Your task to perform on an android device: Add "apple airpods" to the cart on newegg.com Image 0: 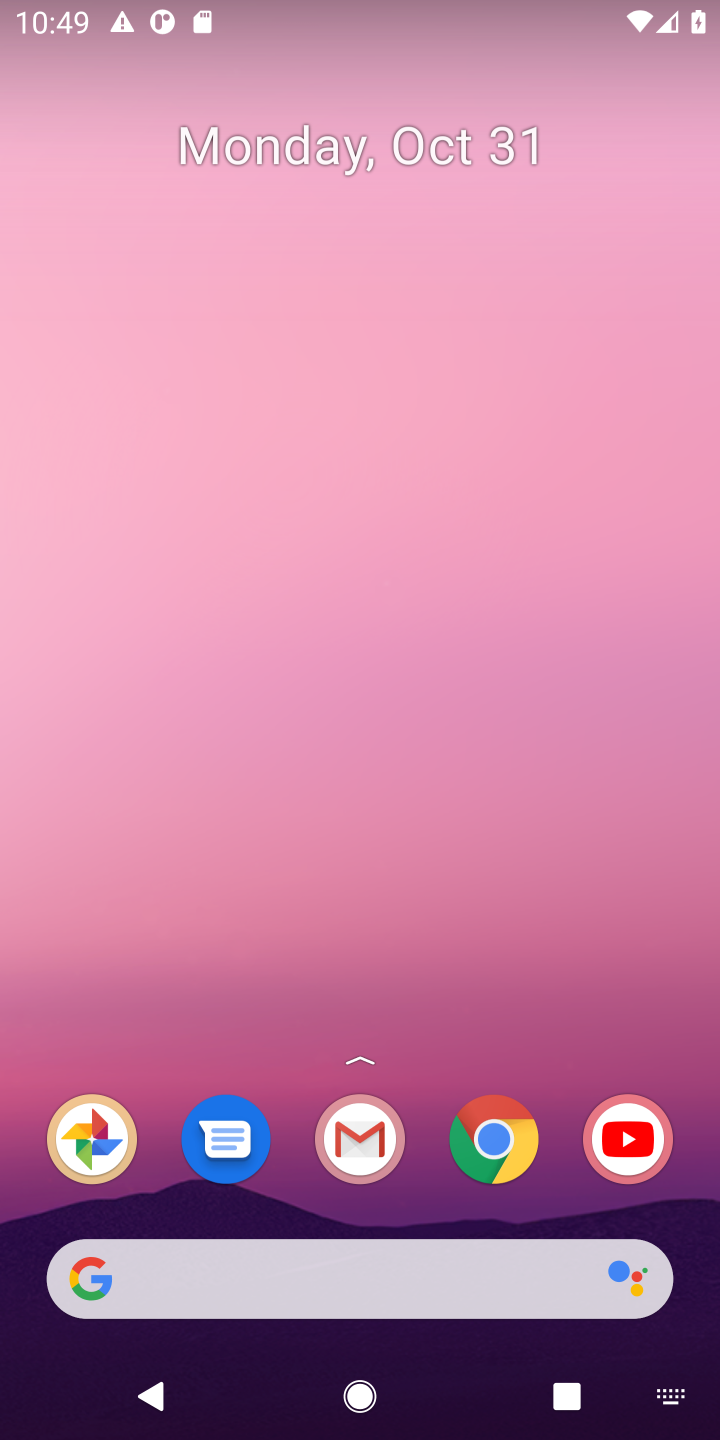
Step 0: press home button
Your task to perform on an android device: Add "apple airpods" to the cart on newegg.com Image 1: 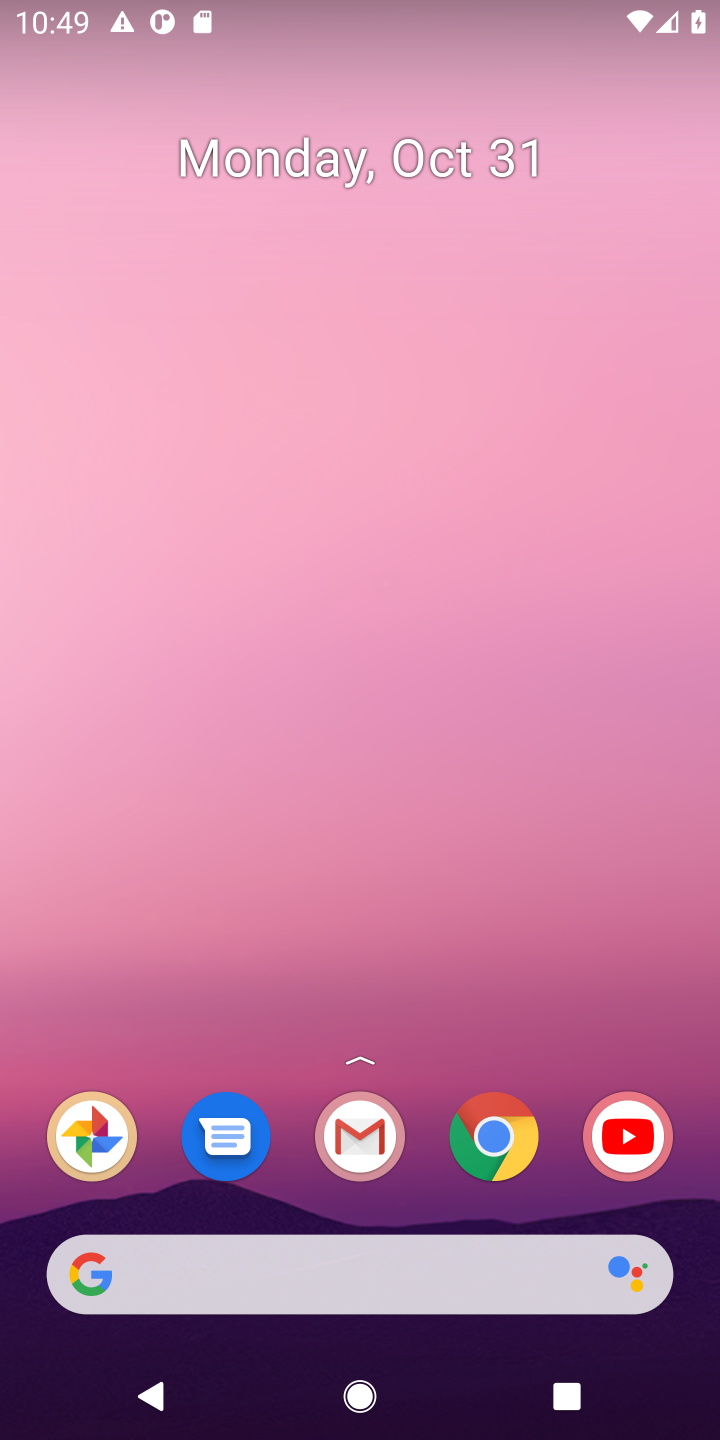
Step 1: press home button
Your task to perform on an android device: Add "apple airpods" to the cart on newegg.com Image 2: 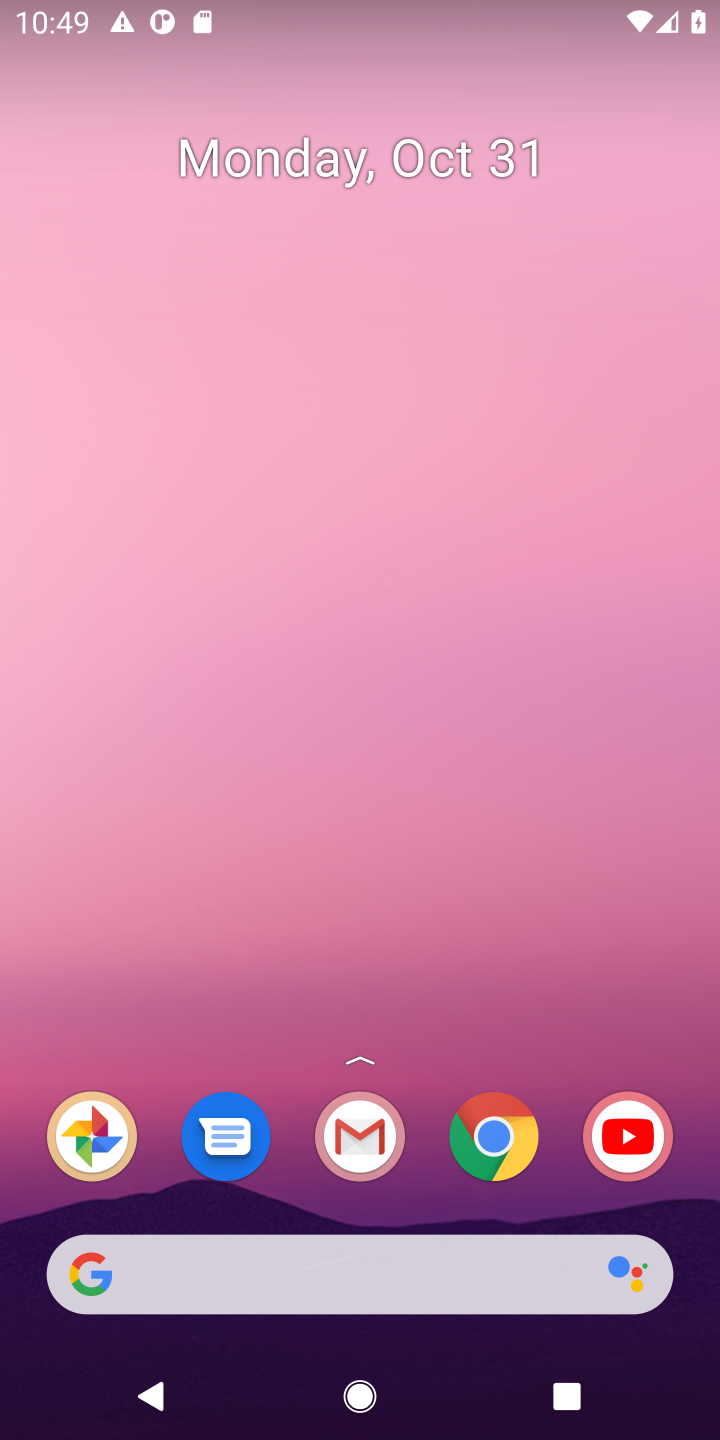
Step 2: click (127, 1267)
Your task to perform on an android device: Add "apple airpods" to the cart on newegg.com Image 3: 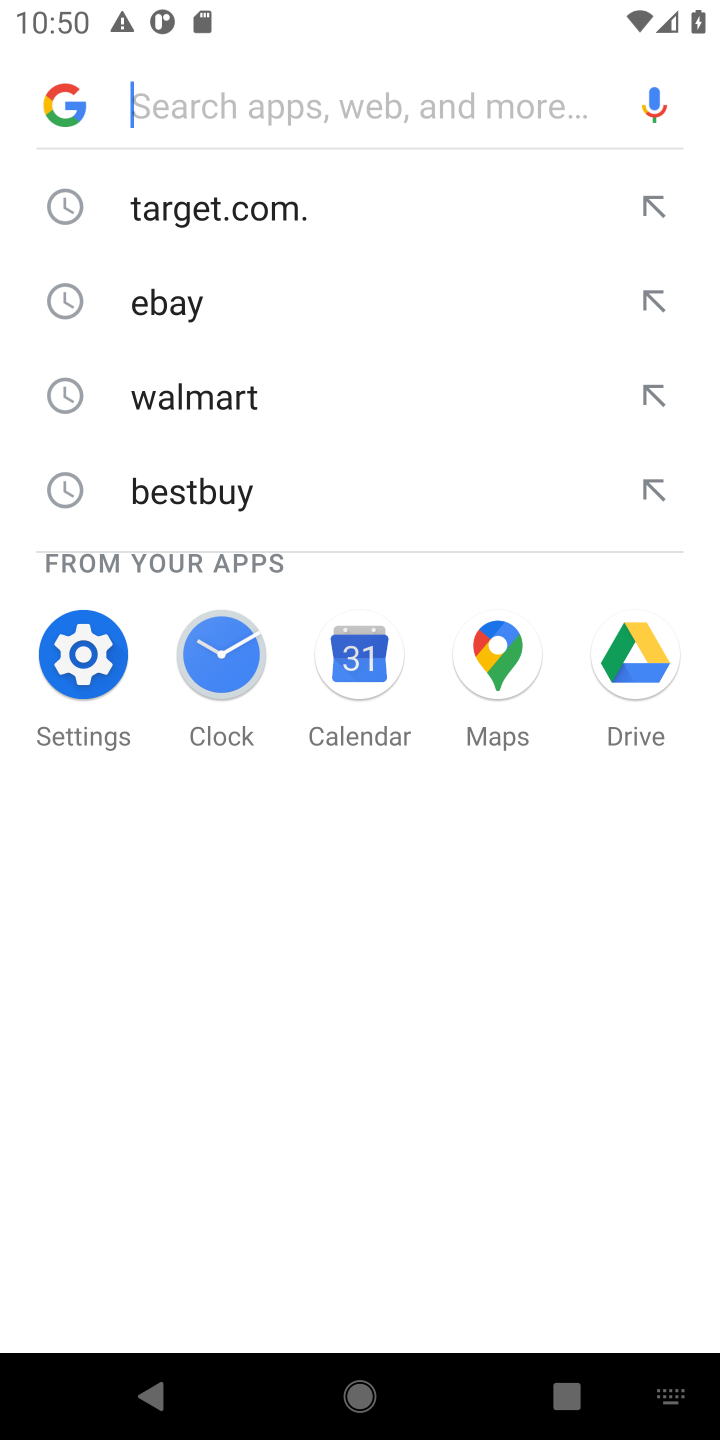
Step 3: press enter
Your task to perform on an android device: Add "apple airpods" to the cart on newegg.com Image 4: 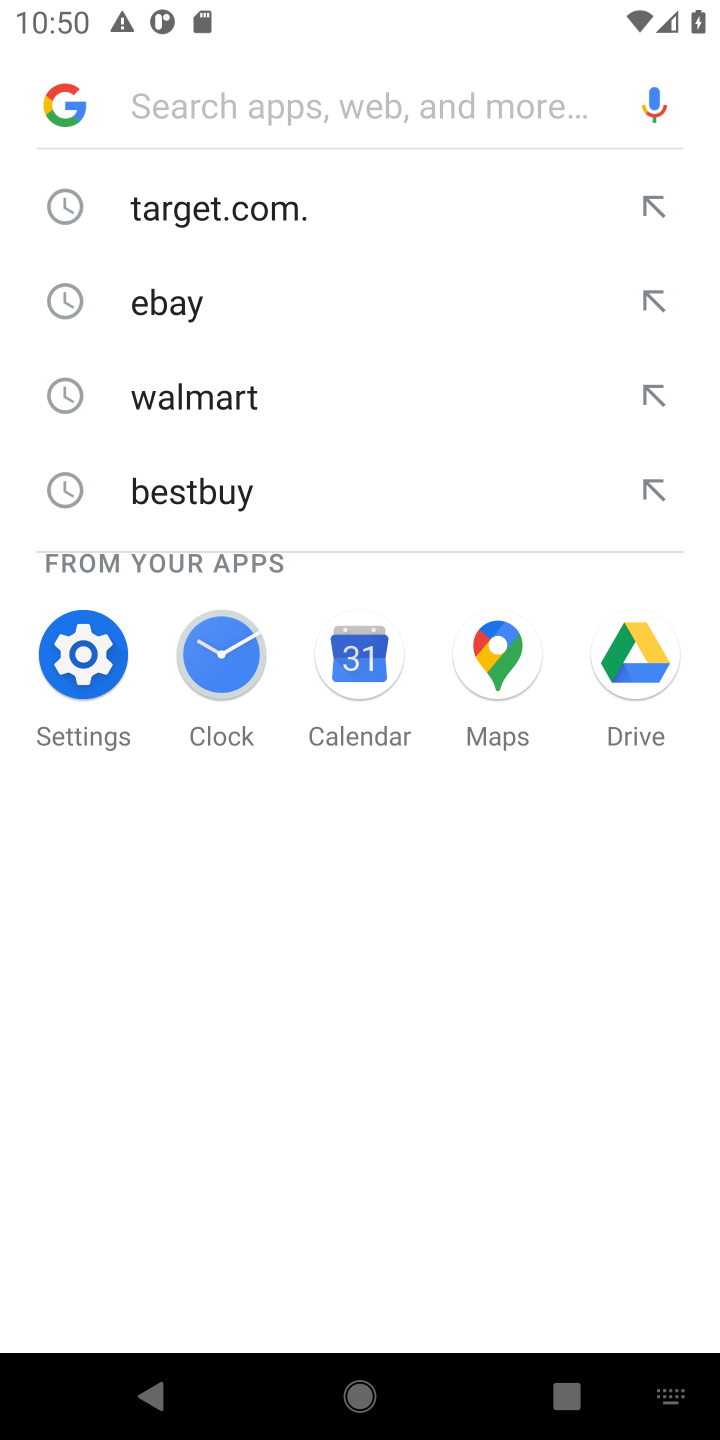
Step 4: type "newegg.com"
Your task to perform on an android device: Add "apple airpods" to the cart on newegg.com Image 5: 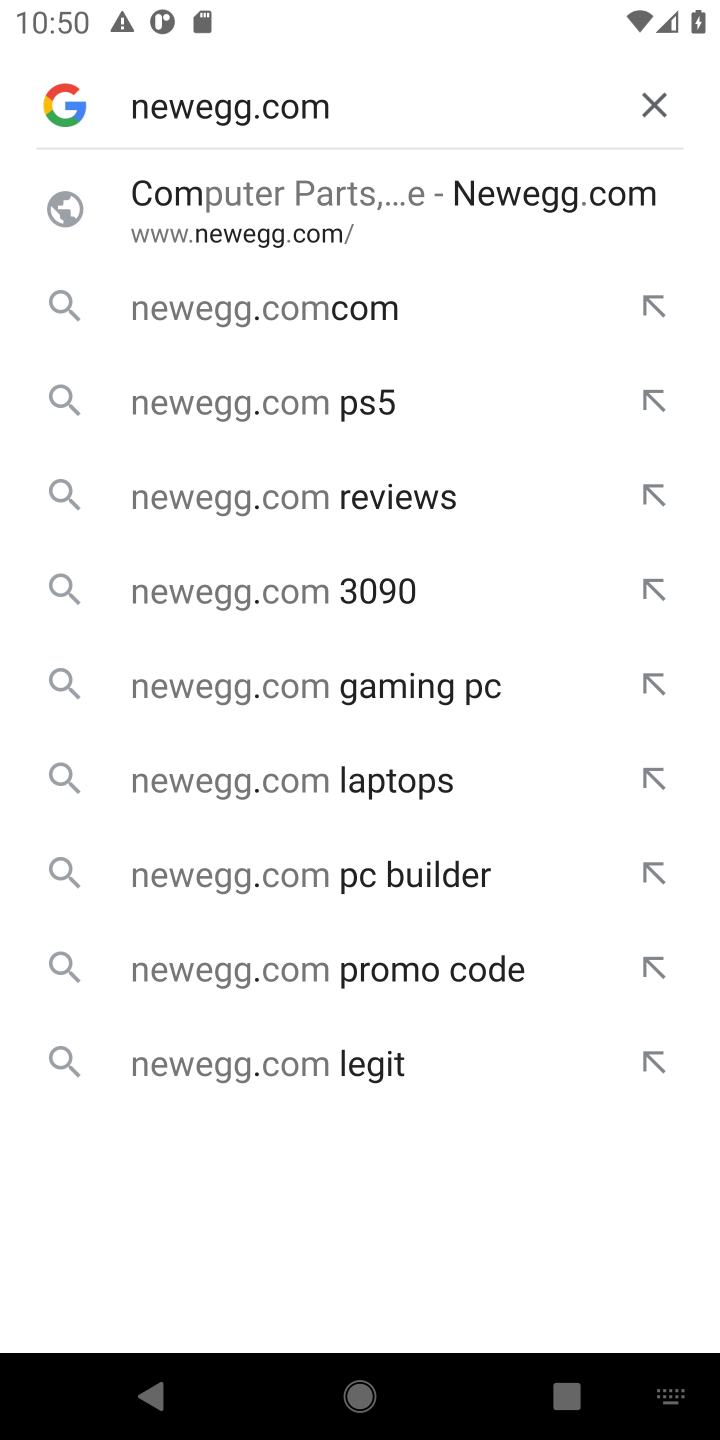
Step 5: press enter
Your task to perform on an android device: Add "apple airpods" to the cart on newegg.com Image 6: 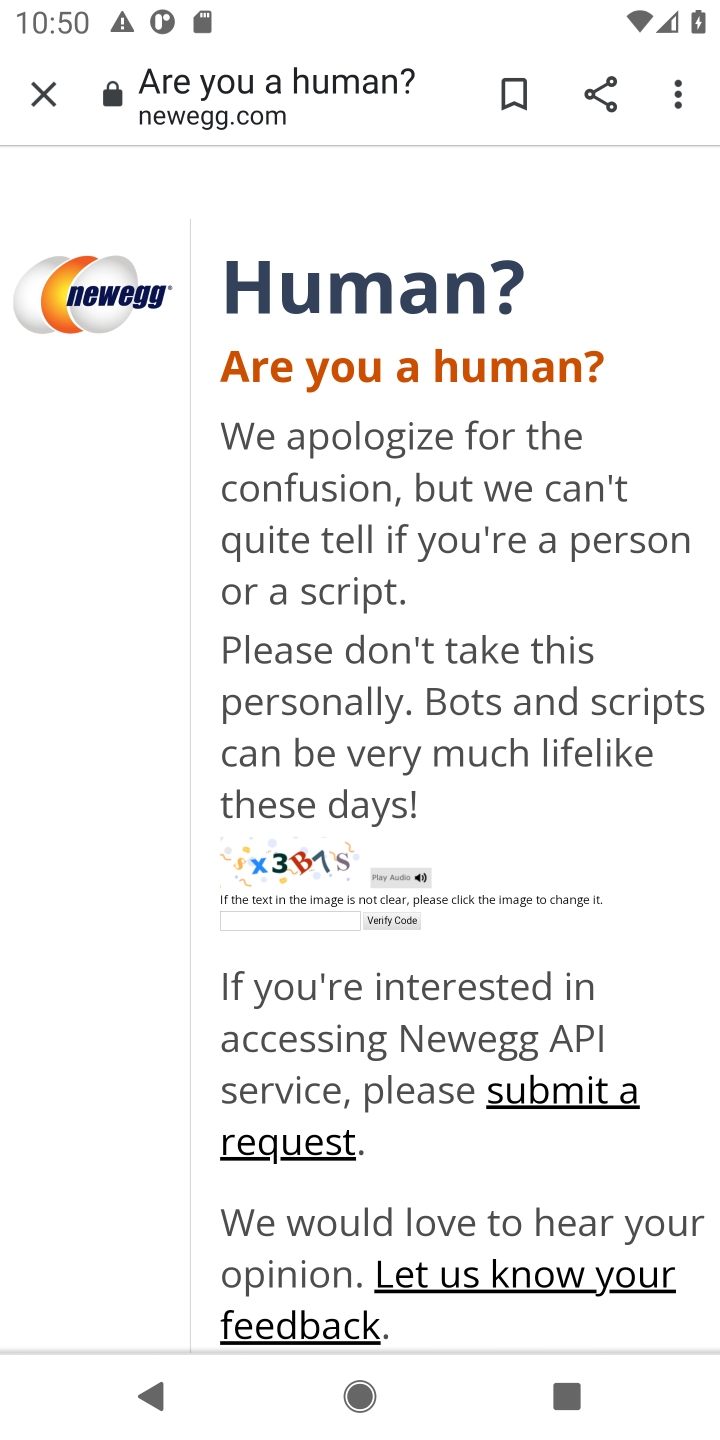
Step 6: task complete